Your task to perform on an android device: Open the phone app and click the voicemail tab. Image 0: 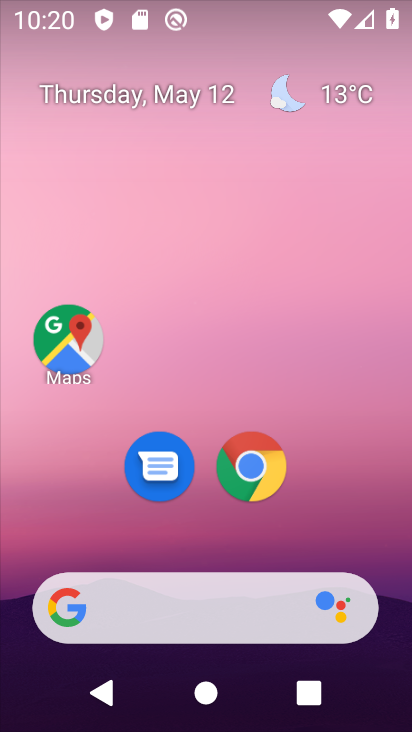
Step 0: drag from (203, 528) to (244, 39)
Your task to perform on an android device: Open the phone app and click the voicemail tab. Image 1: 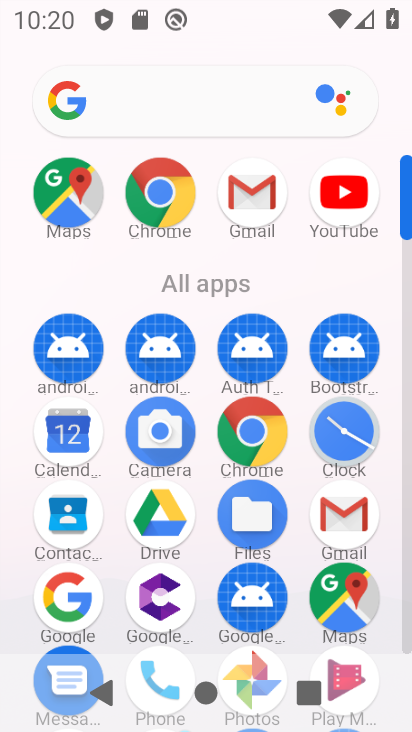
Step 1: drag from (199, 533) to (248, 228)
Your task to perform on an android device: Open the phone app and click the voicemail tab. Image 2: 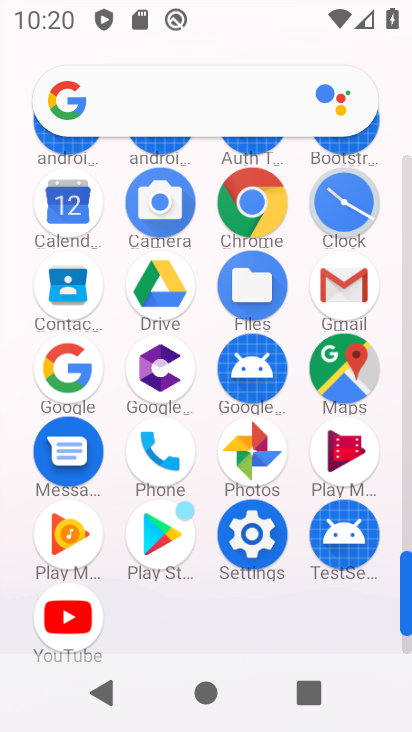
Step 2: click (170, 463)
Your task to perform on an android device: Open the phone app and click the voicemail tab. Image 3: 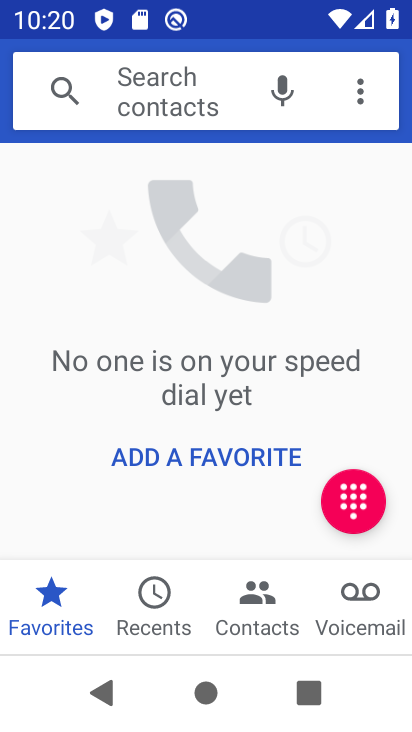
Step 3: click (353, 614)
Your task to perform on an android device: Open the phone app and click the voicemail tab. Image 4: 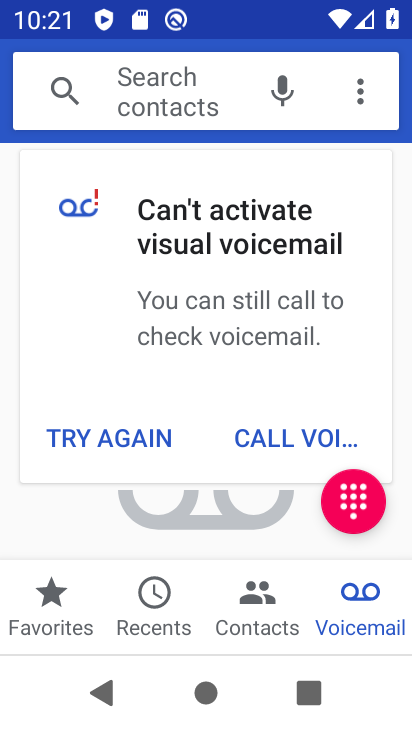
Step 4: task complete